Your task to perform on an android device: open the mobile data screen to see how much data has been used Image 0: 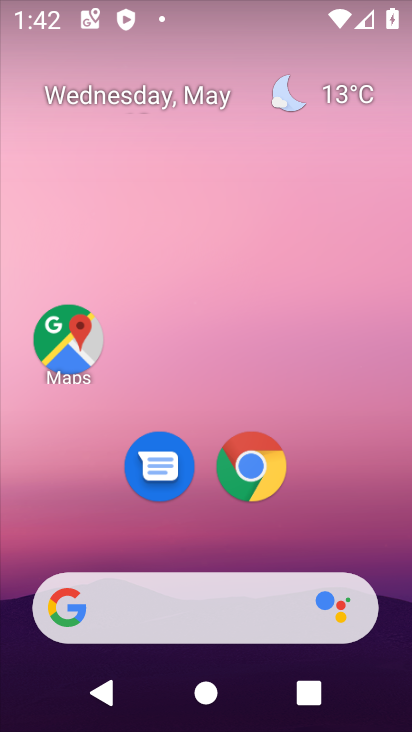
Step 0: press home button
Your task to perform on an android device: open the mobile data screen to see how much data has been used Image 1: 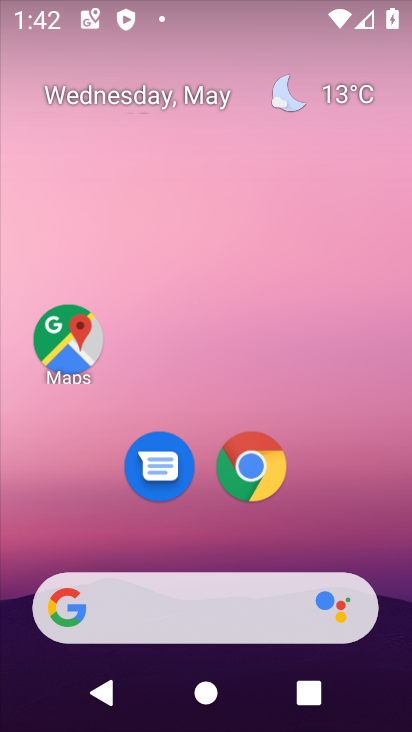
Step 1: drag from (393, 548) to (334, 145)
Your task to perform on an android device: open the mobile data screen to see how much data has been used Image 2: 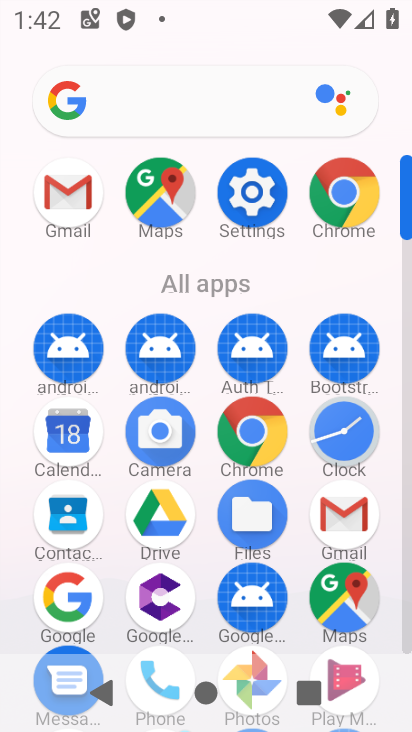
Step 2: drag from (229, 18) to (181, 641)
Your task to perform on an android device: open the mobile data screen to see how much data has been used Image 3: 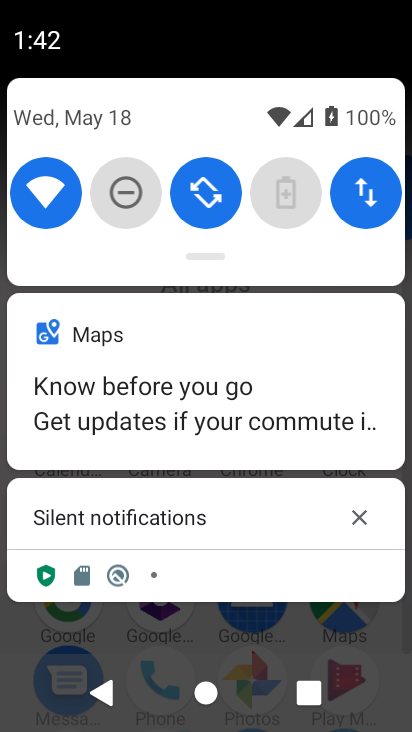
Step 3: drag from (203, 251) to (143, 719)
Your task to perform on an android device: open the mobile data screen to see how much data has been used Image 4: 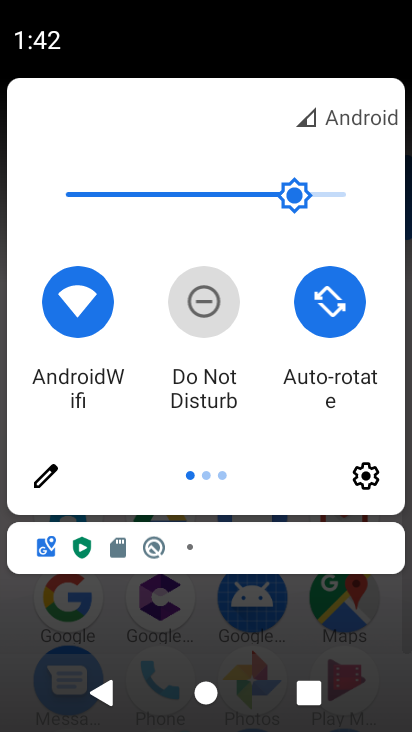
Step 4: drag from (379, 311) to (57, 339)
Your task to perform on an android device: open the mobile data screen to see how much data has been used Image 5: 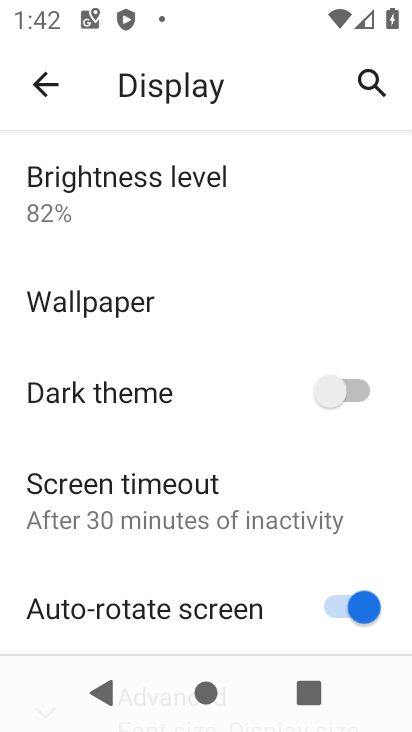
Step 5: press home button
Your task to perform on an android device: open the mobile data screen to see how much data has been used Image 6: 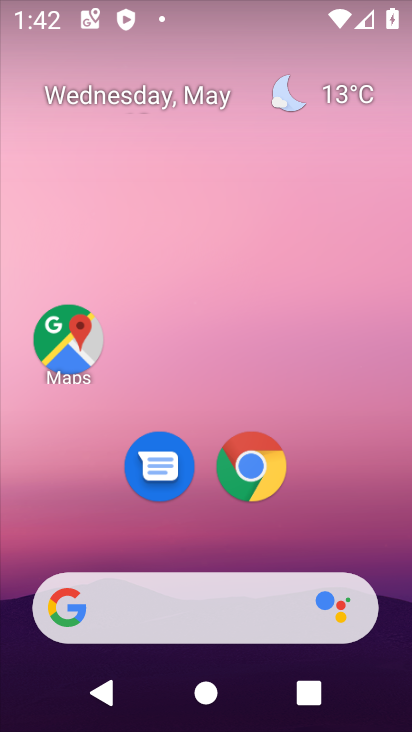
Step 6: drag from (342, 13) to (320, 659)
Your task to perform on an android device: open the mobile data screen to see how much data has been used Image 7: 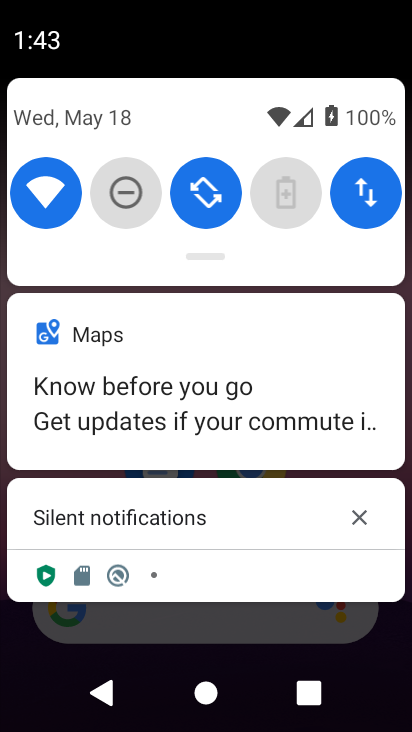
Step 7: click (371, 184)
Your task to perform on an android device: open the mobile data screen to see how much data has been used Image 8: 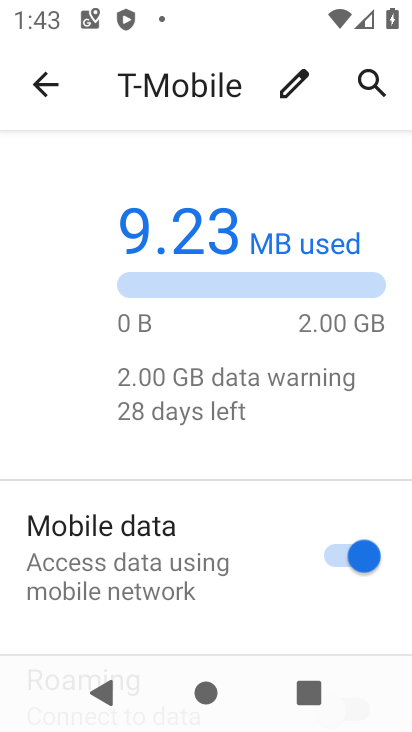
Step 8: task complete